Your task to perform on an android device: check data usage Image 0: 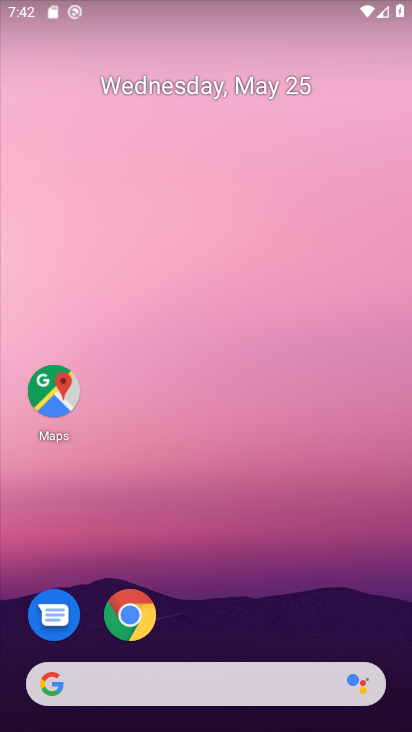
Step 0: drag from (229, 591) to (255, 25)
Your task to perform on an android device: check data usage Image 1: 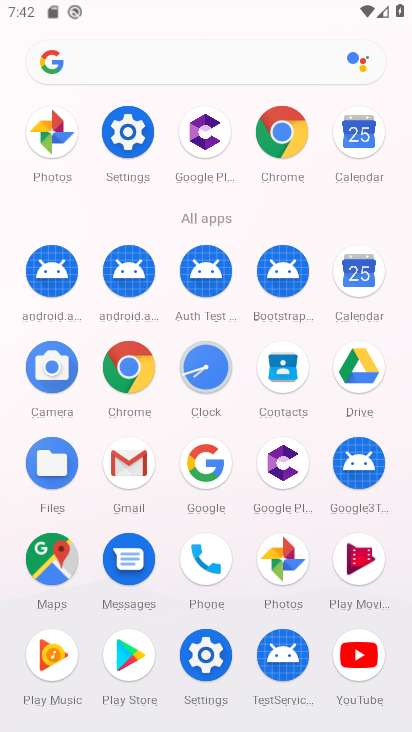
Step 1: click (207, 649)
Your task to perform on an android device: check data usage Image 2: 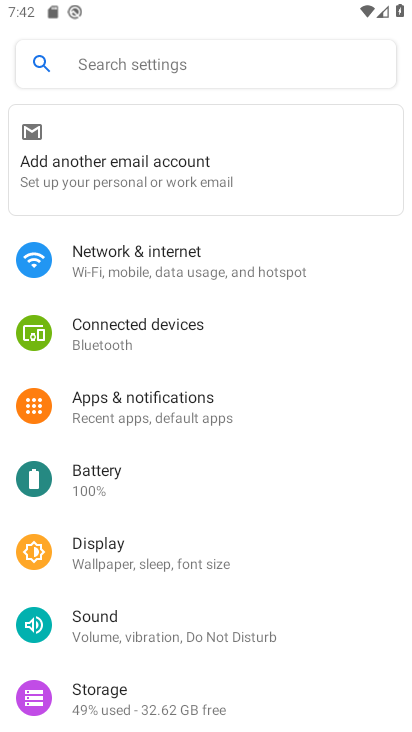
Step 2: click (186, 279)
Your task to perform on an android device: check data usage Image 3: 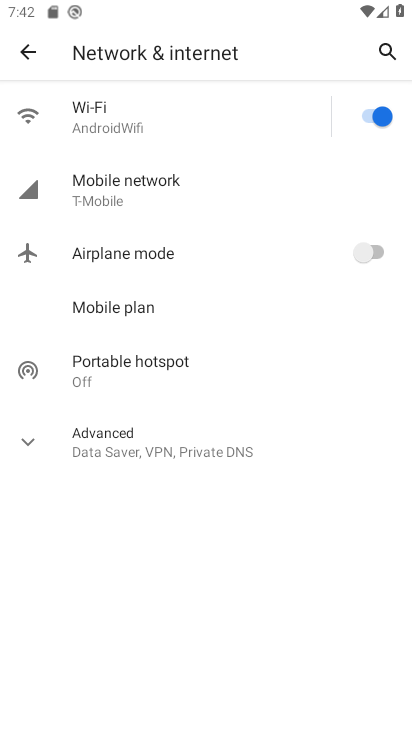
Step 3: click (165, 187)
Your task to perform on an android device: check data usage Image 4: 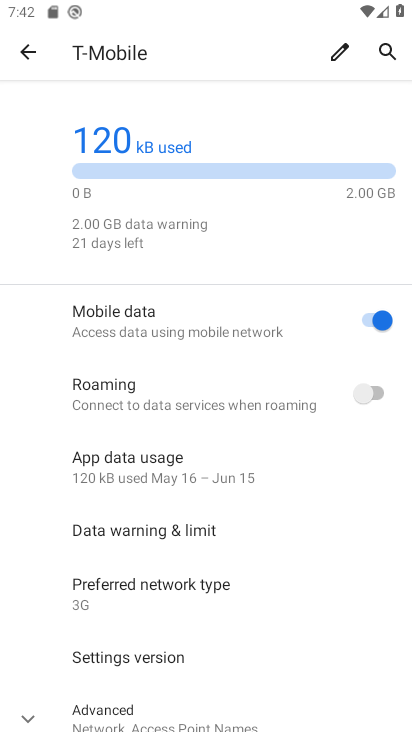
Step 4: click (21, 712)
Your task to perform on an android device: check data usage Image 5: 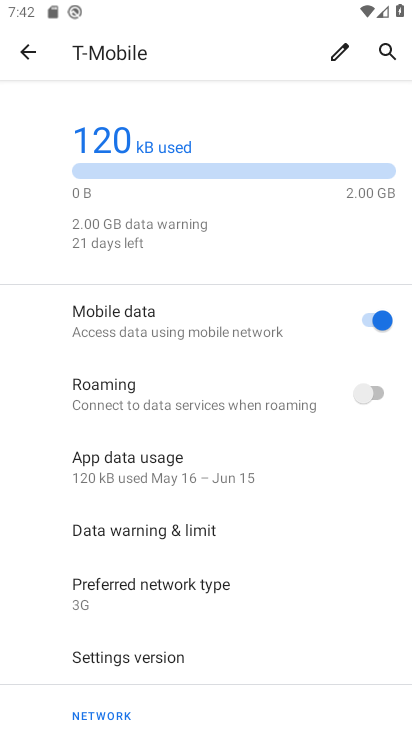
Step 5: task complete